Your task to perform on an android device: create a new album in the google photos Image 0: 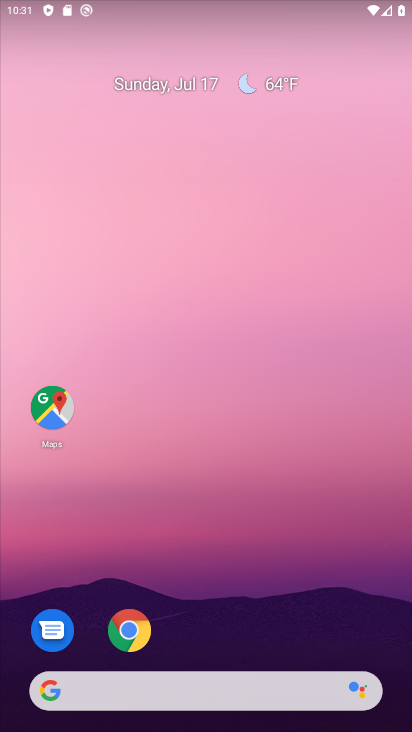
Step 0: drag from (347, 629) to (270, 113)
Your task to perform on an android device: create a new album in the google photos Image 1: 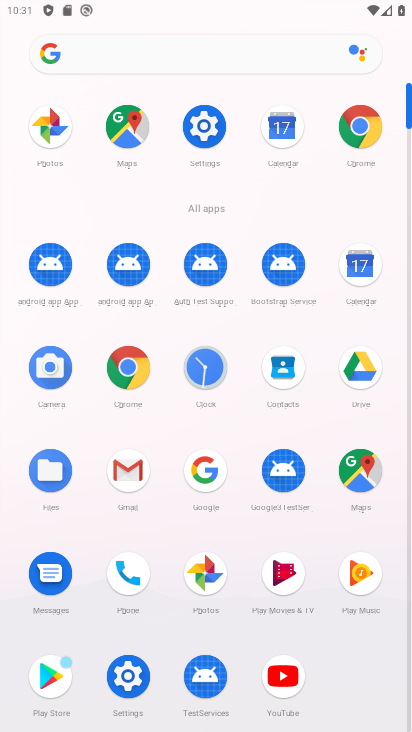
Step 1: click (205, 575)
Your task to perform on an android device: create a new album in the google photos Image 2: 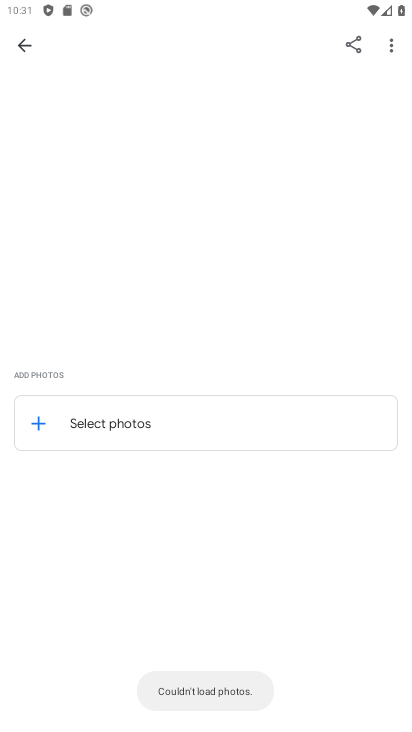
Step 2: task complete